Your task to perform on an android device: Open settings on Google Maps Image 0: 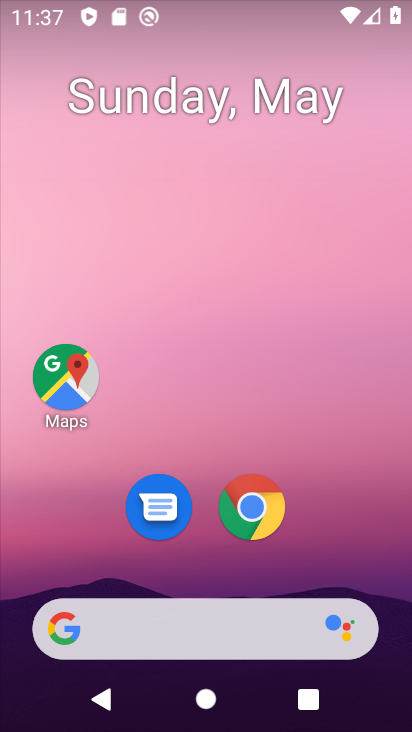
Step 0: drag from (231, 723) to (211, 78)
Your task to perform on an android device: Open settings on Google Maps Image 1: 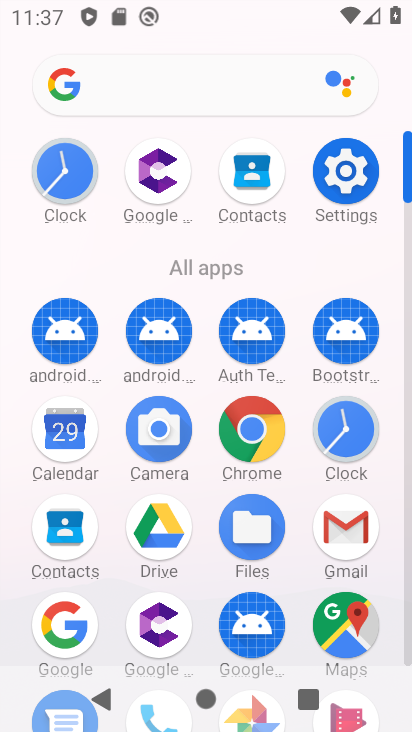
Step 1: click (341, 627)
Your task to perform on an android device: Open settings on Google Maps Image 2: 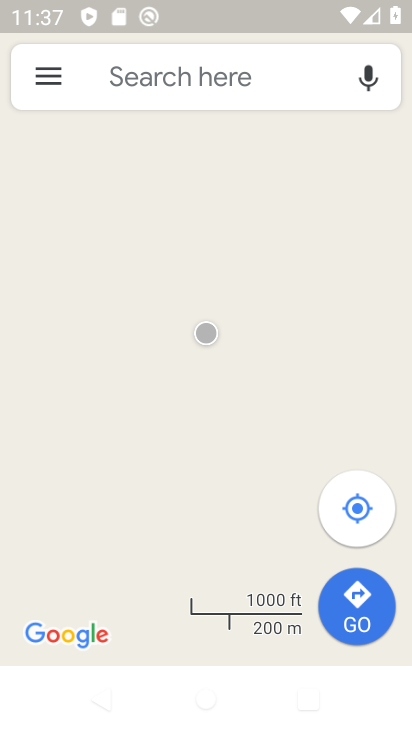
Step 2: click (46, 74)
Your task to perform on an android device: Open settings on Google Maps Image 3: 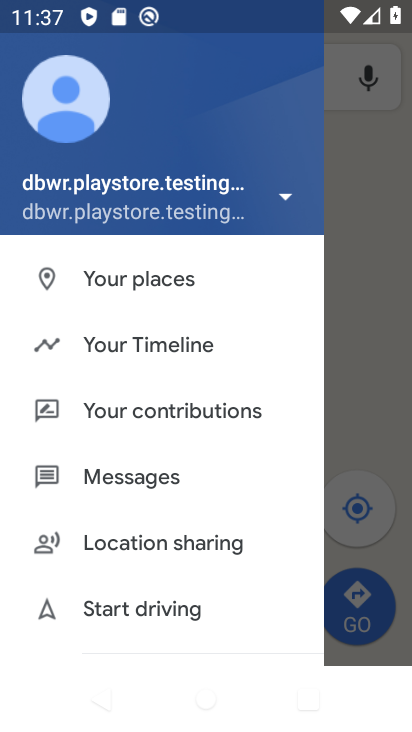
Step 3: drag from (109, 630) to (111, 178)
Your task to perform on an android device: Open settings on Google Maps Image 4: 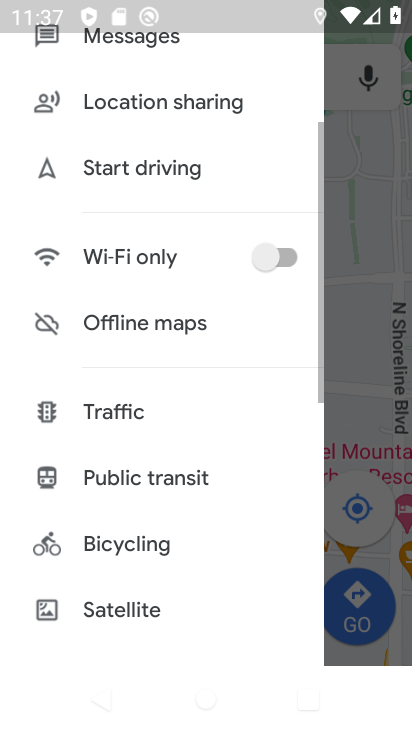
Step 4: drag from (114, 631) to (115, 144)
Your task to perform on an android device: Open settings on Google Maps Image 5: 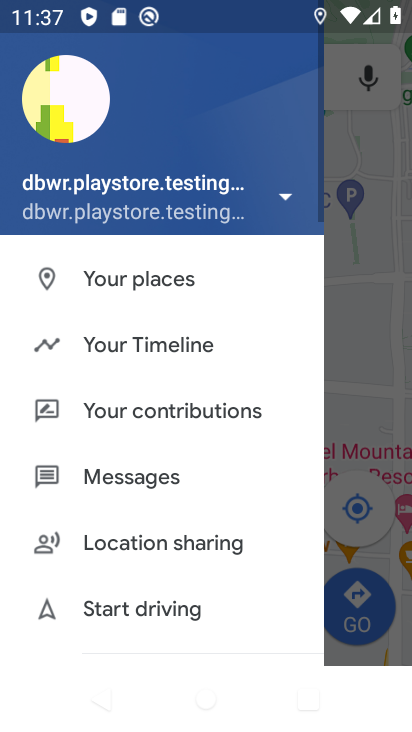
Step 5: drag from (110, 605) to (108, 120)
Your task to perform on an android device: Open settings on Google Maps Image 6: 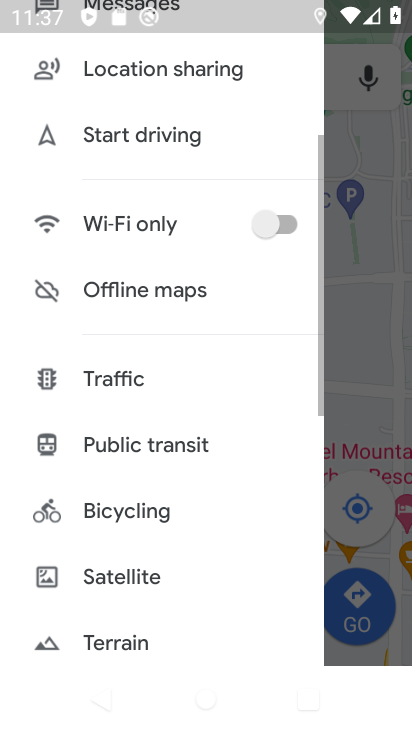
Step 6: drag from (128, 643) to (128, 128)
Your task to perform on an android device: Open settings on Google Maps Image 7: 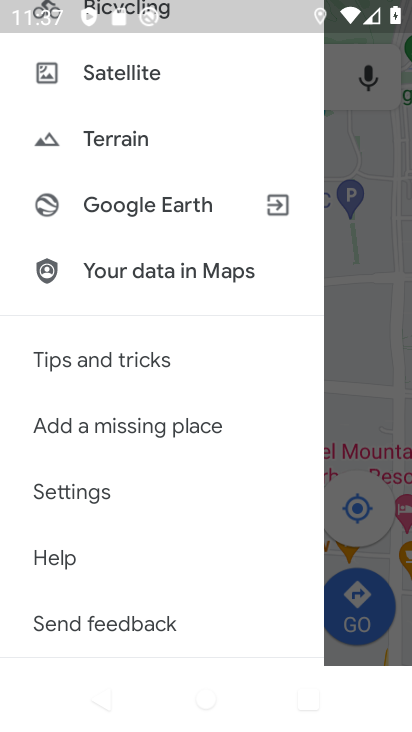
Step 7: click (68, 487)
Your task to perform on an android device: Open settings on Google Maps Image 8: 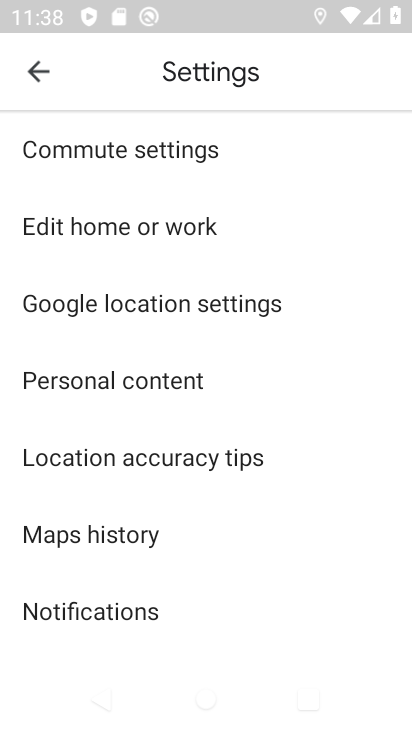
Step 8: task complete